Your task to perform on an android device: Check the news Image 0: 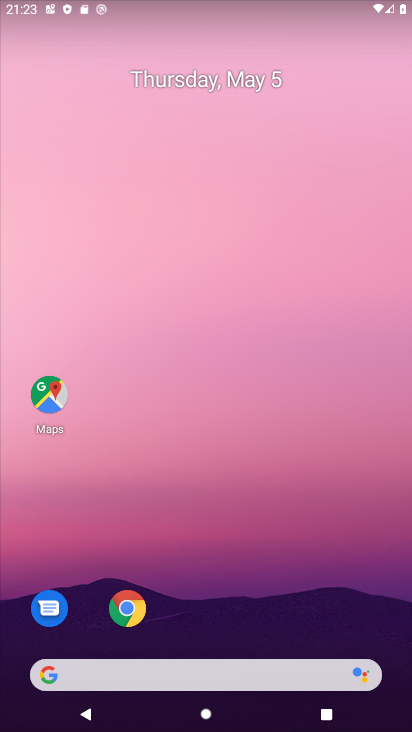
Step 0: drag from (306, 604) to (303, 113)
Your task to perform on an android device: Check the news Image 1: 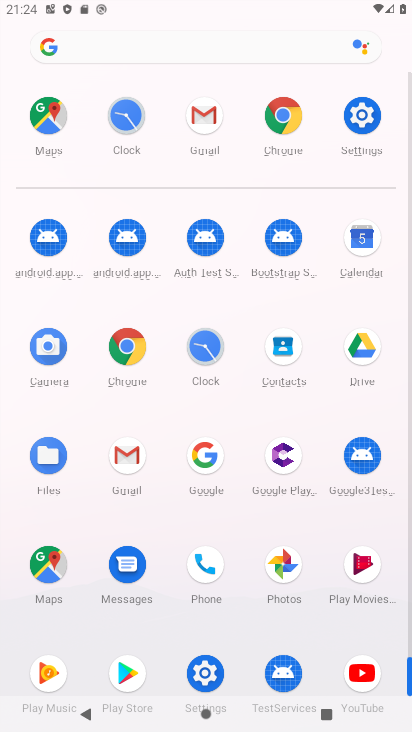
Step 1: click (123, 350)
Your task to perform on an android device: Check the news Image 2: 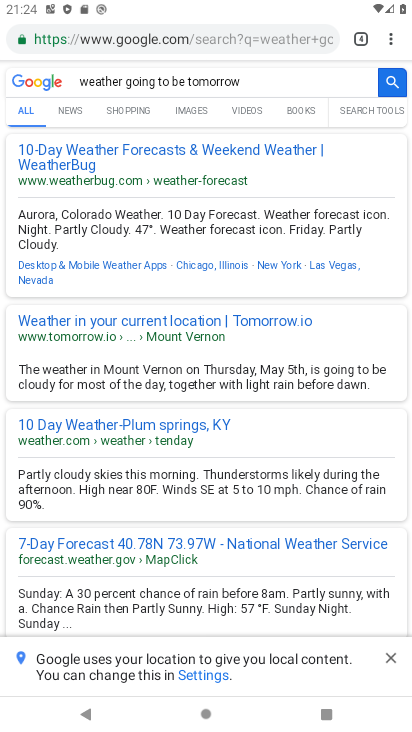
Step 2: click (303, 36)
Your task to perform on an android device: Check the news Image 3: 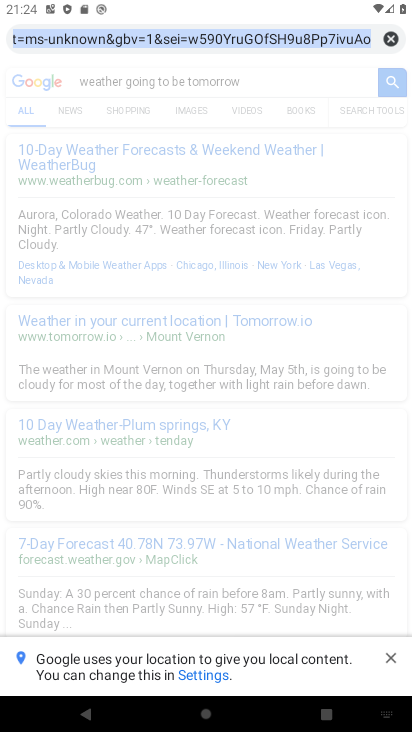
Step 3: click (388, 42)
Your task to perform on an android device: Check the news Image 4: 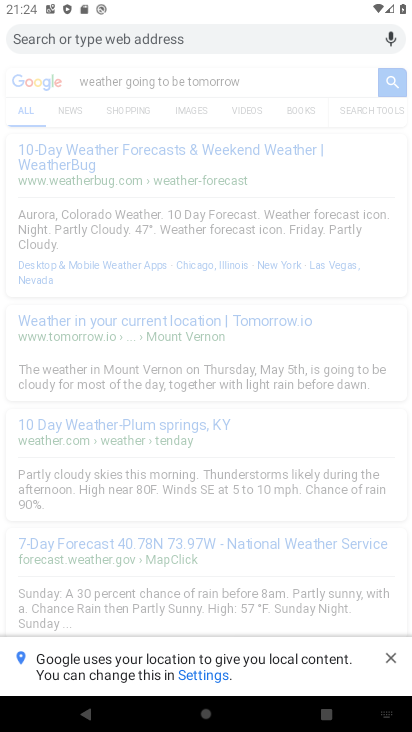
Step 4: type "check the news"
Your task to perform on an android device: Check the news Image 5: 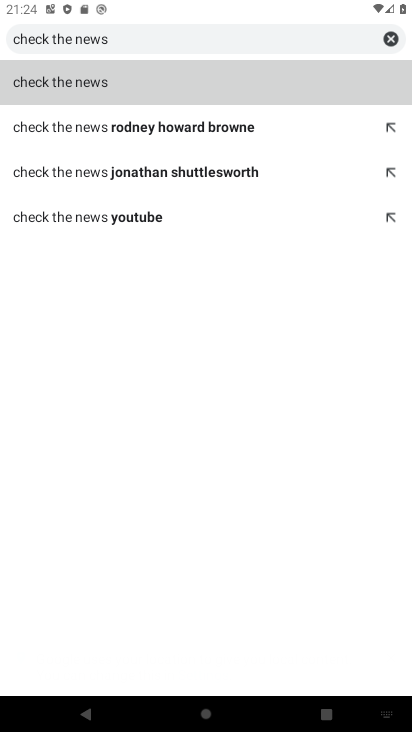
Step 5: click (188, 81)
Your task to perform on an android device: Check the news Image 6: 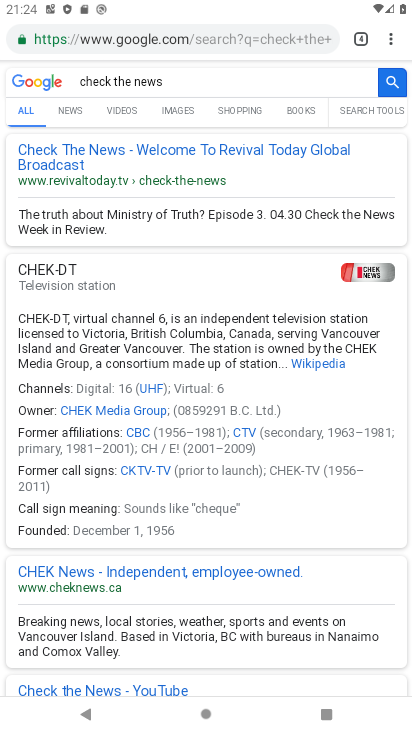
Step 6: task complete